Your task to perform on an android device: Go to calendar. Show me events next week Image 0: 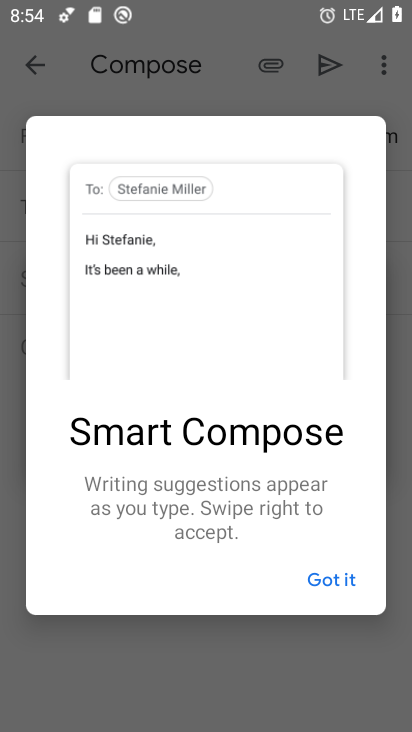
Step 0: press home button
Your task to perform on an android device: Go to calendar. Show me events next week Image 1: 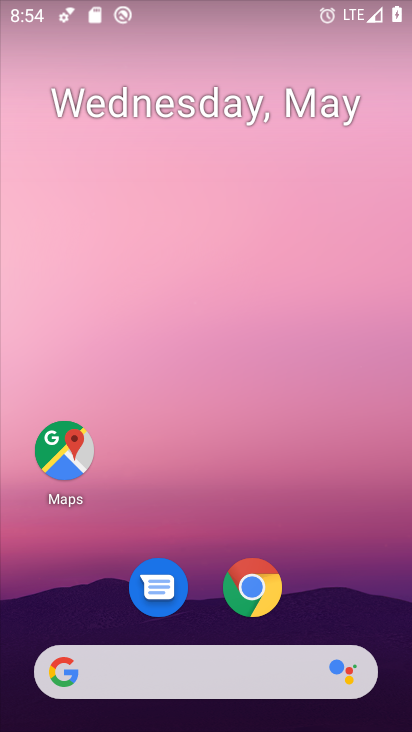
Step 1: drag from (198, 617) to (244, 112)
Your task to perform on an android device: Go to calendar. Show me events next week Image 2: 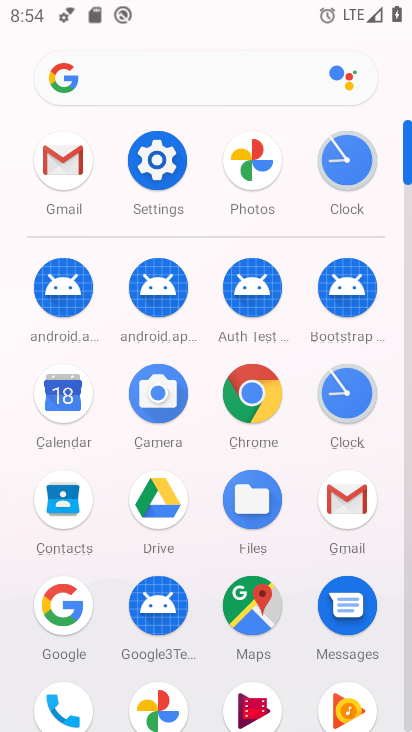
Step 2: click (72, 392)
Your task to perform on an android device: Go to calendar. Show me events next week Image 3: 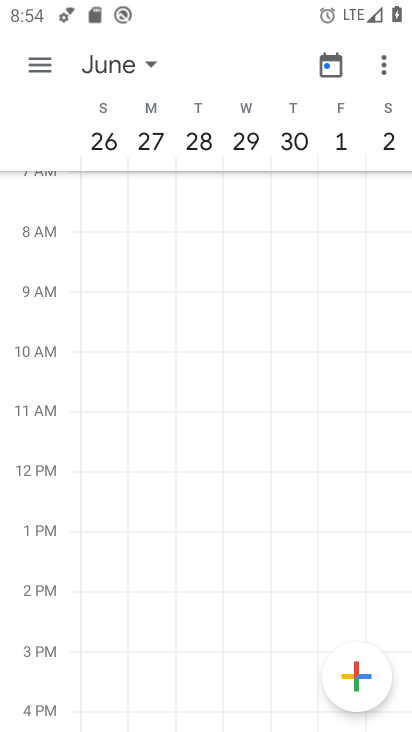
Step 3: task complete